Your task to perform on an android device: change alarm snooze length Image 0: 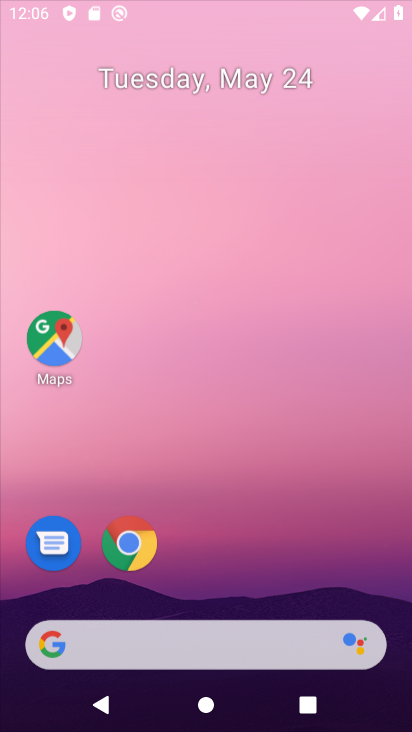
Step 0: click (269, 105)
Your task to perform on an android device: change alarm snooze length Image 1: 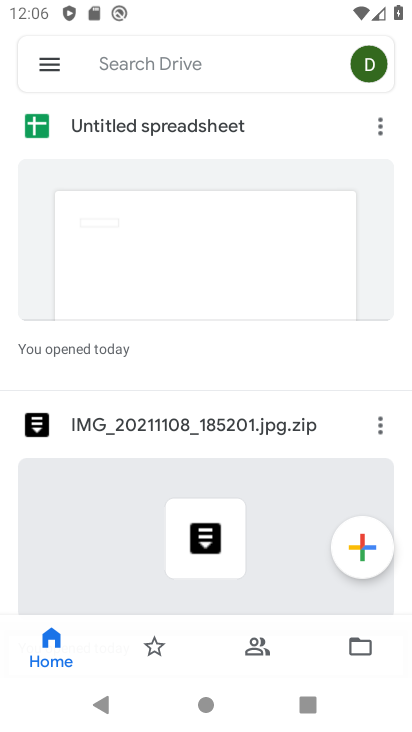
Step 1: press home button
Your task to perform on an android device: change alarm snooze length Image 2: 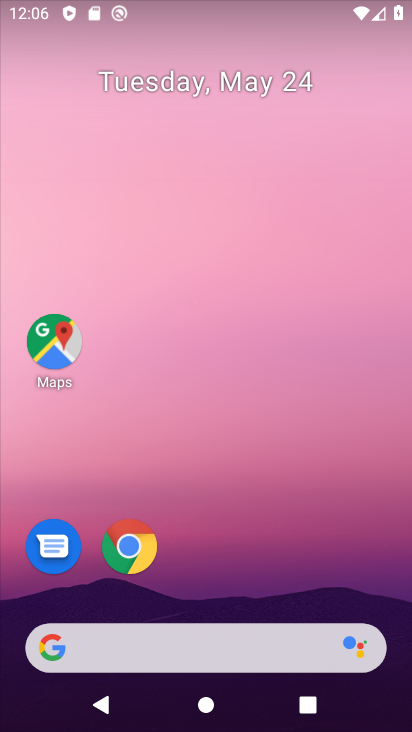
Step 2: drag from (188, 548) to (205, 3)
Your task to perform on an android device: change alarm snooze length Image 3: 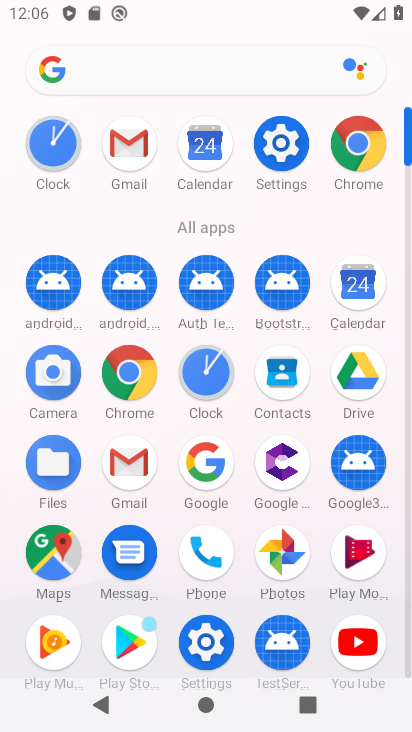
Step 3: click (203, 379)
Your task to perform on an android device: change alarm snooze length Image 4: 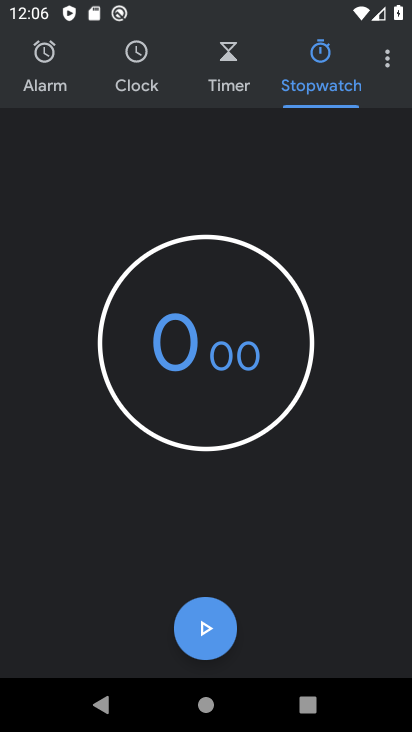
Step 4: click (395, 48)
Your task to perform on an android device: change alarm snooze length Image 5: 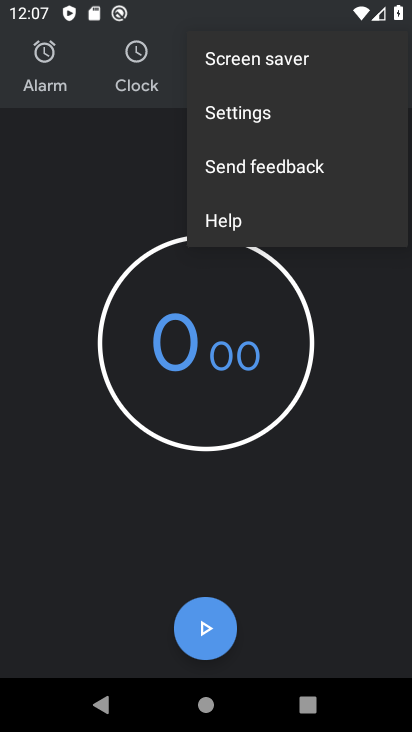
Step 5: click (253, 125)
Your task to perform on an android device: change alarm snooze length Image 6: 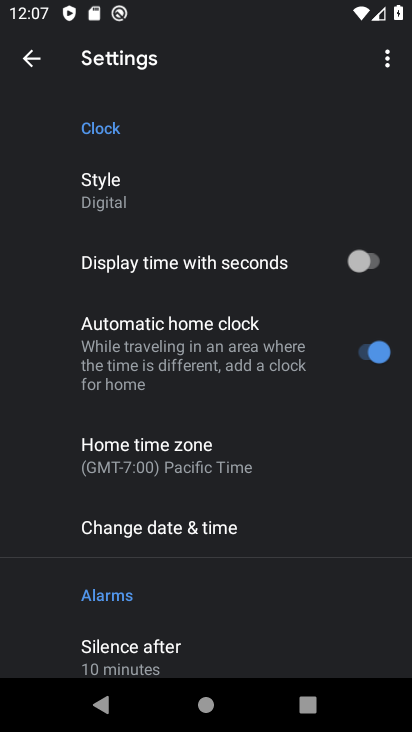
Step 6: drag from (246, 639) to (235, 97)
Your task to perform on an android device: change alarm snooze length Image 7: 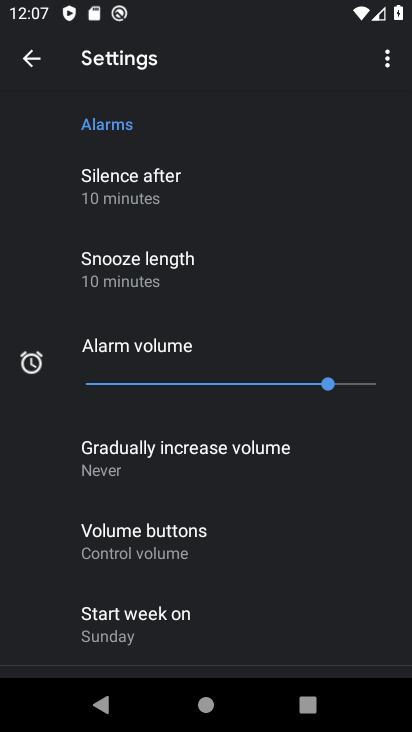
Step 7: click (156, 263)
Your task to perform on an android device: change alarm snooze length Image 8: 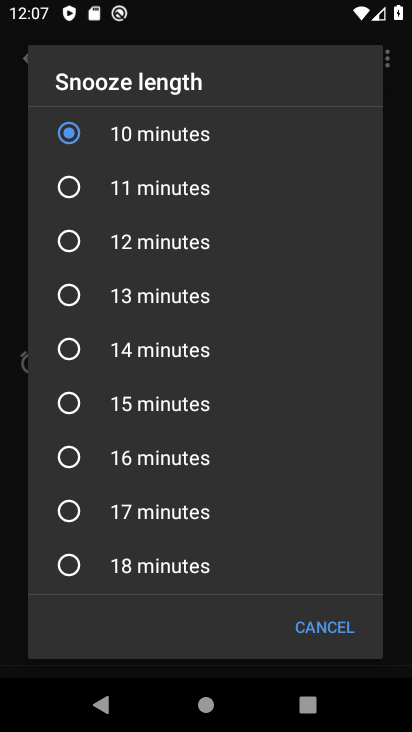
Step 8: click (119, 245)
Your task to perform on an android device: change alarm snooze length Image 9: 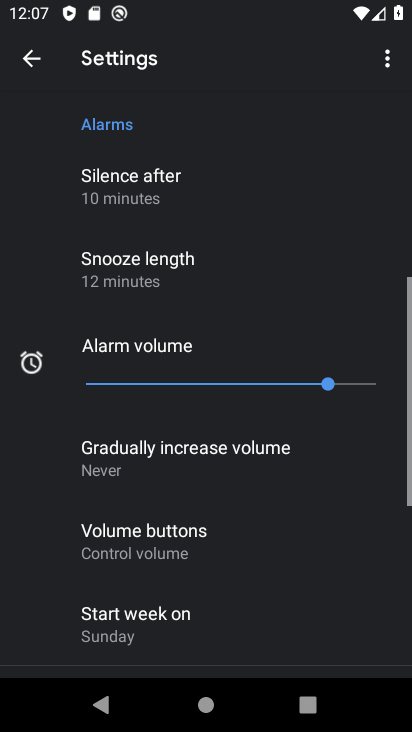
Step 9: task complete